Your task to perform on an android device: Go to eBay Image 0: 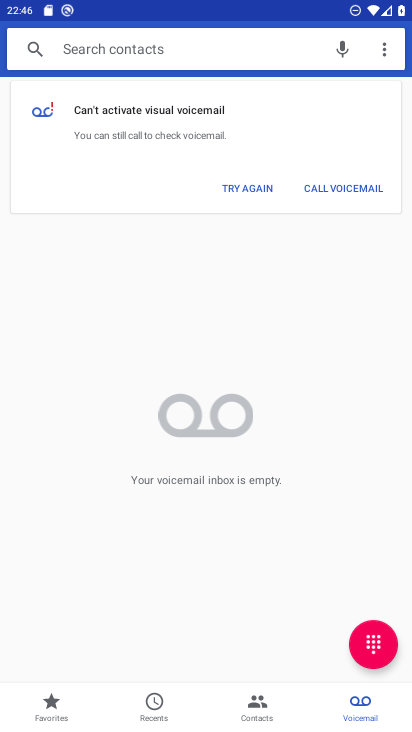
Step 0: press home button
Your task to perform on an android device: Go to eBay Image 1: 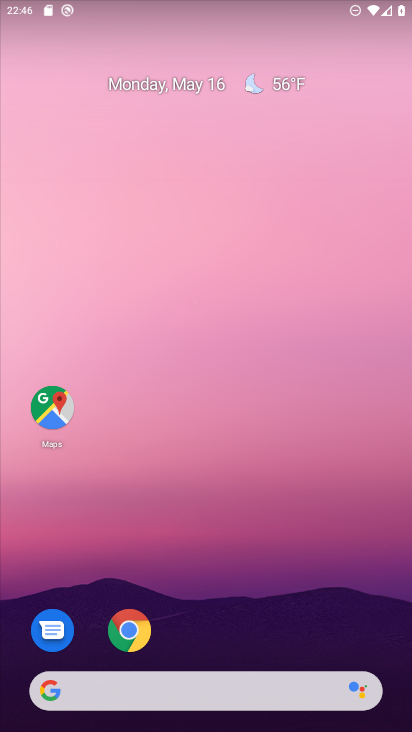
Step 1: click (136, 620)
Your task to perform on an android device: Go to eBay Image 2: 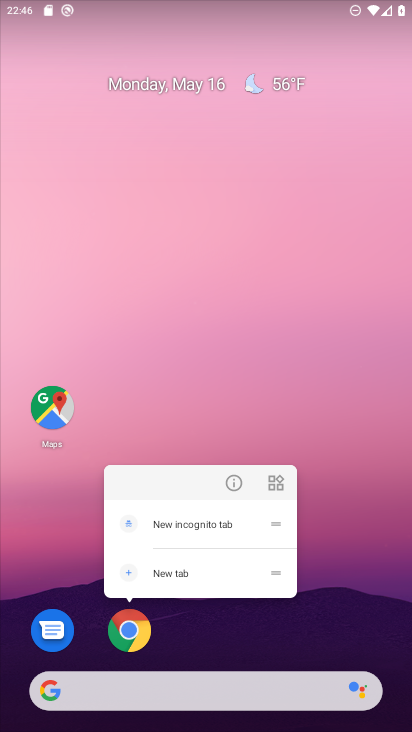
Step 2: click (109, 628)
Your task to perform on an android device: Go to eBay Image 3: 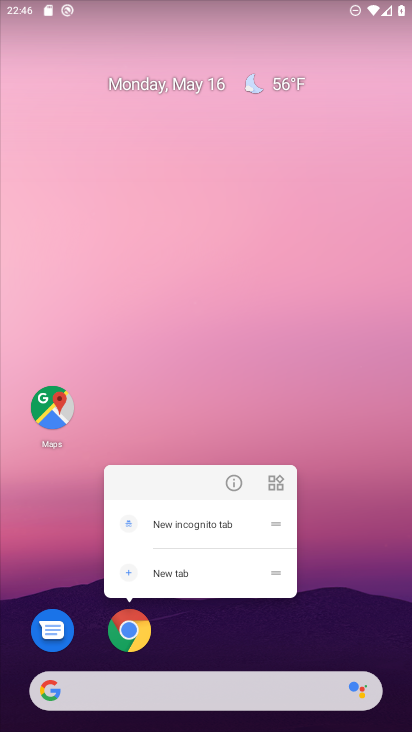
Step 3: click (171, 617)
Your task to perform on an android device: Go to eBay Image 4: 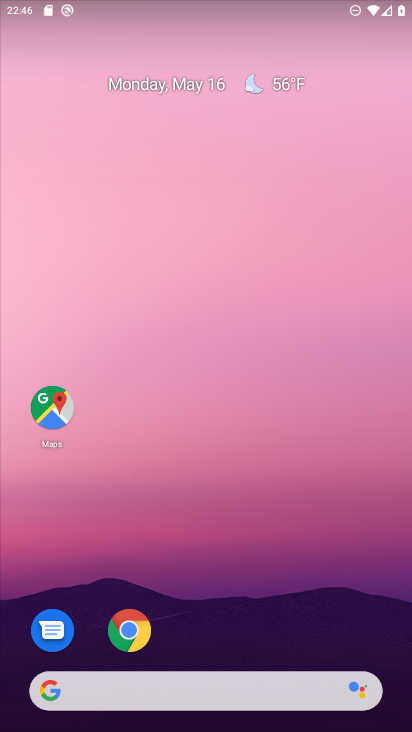
Step 4: click (144, 628)
Your task to perform on an android device: Go to eBay Image 5: 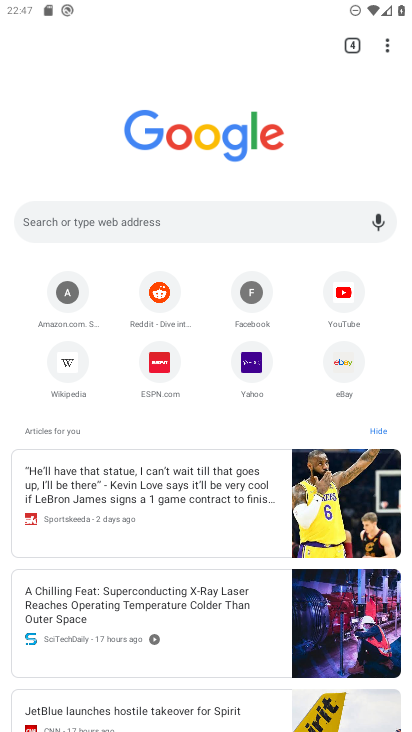
Step 5: click (351, 375)
Your task to perform on an android device: Go to eBay Image 6: 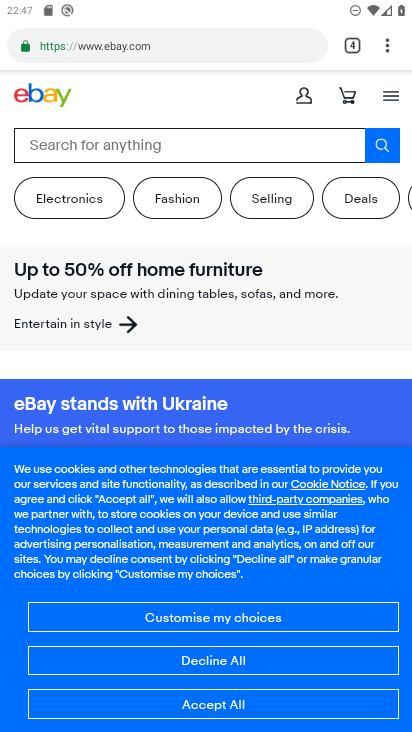
Step 6: task complete